Your task to perform on an android device: Look up the best rated coffee maker on Lowe's. Image 0: 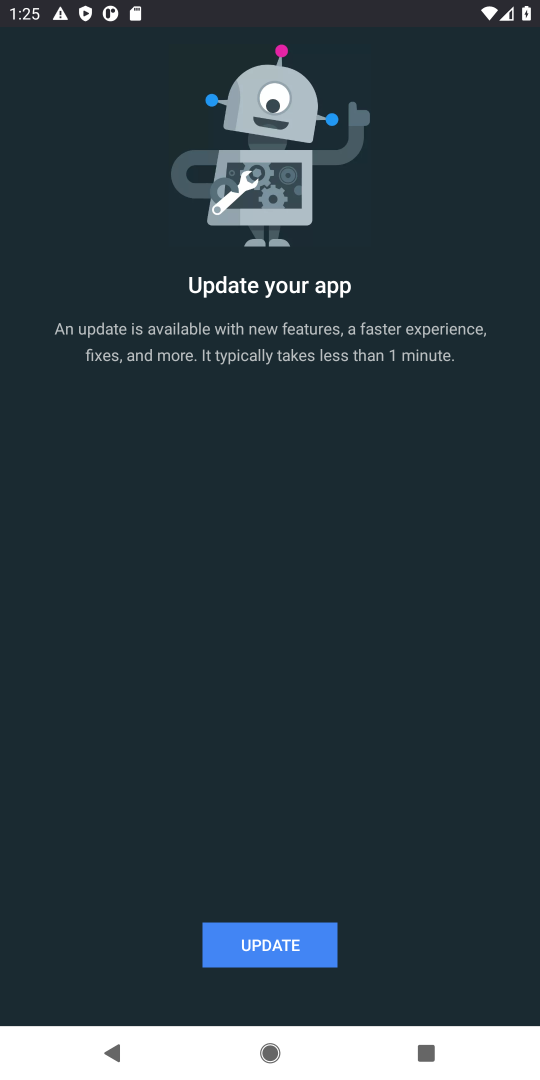
Step 0: press home button
Your task to perform on an android device: Look up the best rated coffee maker on Lowe's. Image 1: 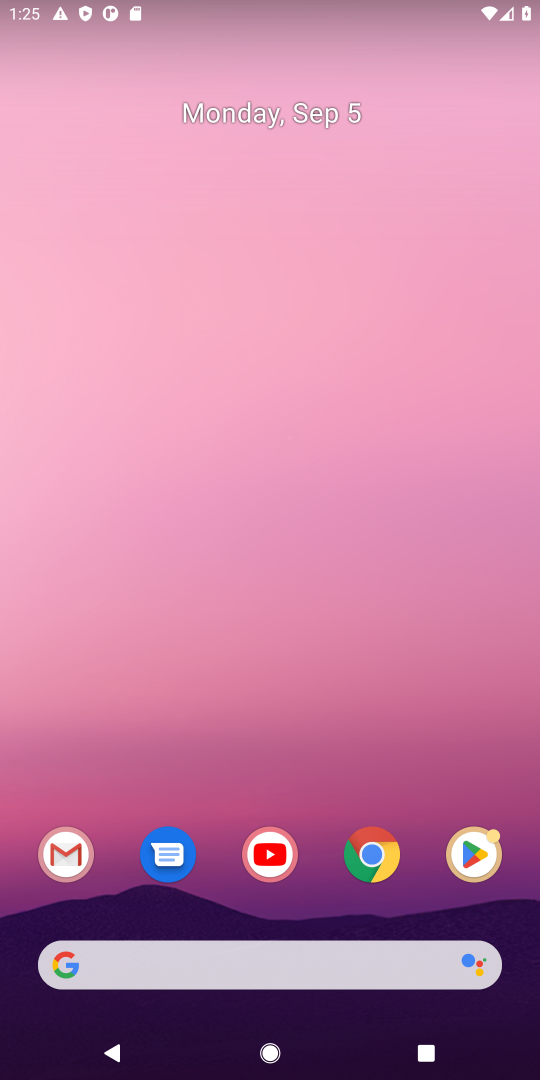
Step 1: click (353, 965)
Your task to perform on an android device: Look up the best rated coffee maker on Lowe's. Image 2: 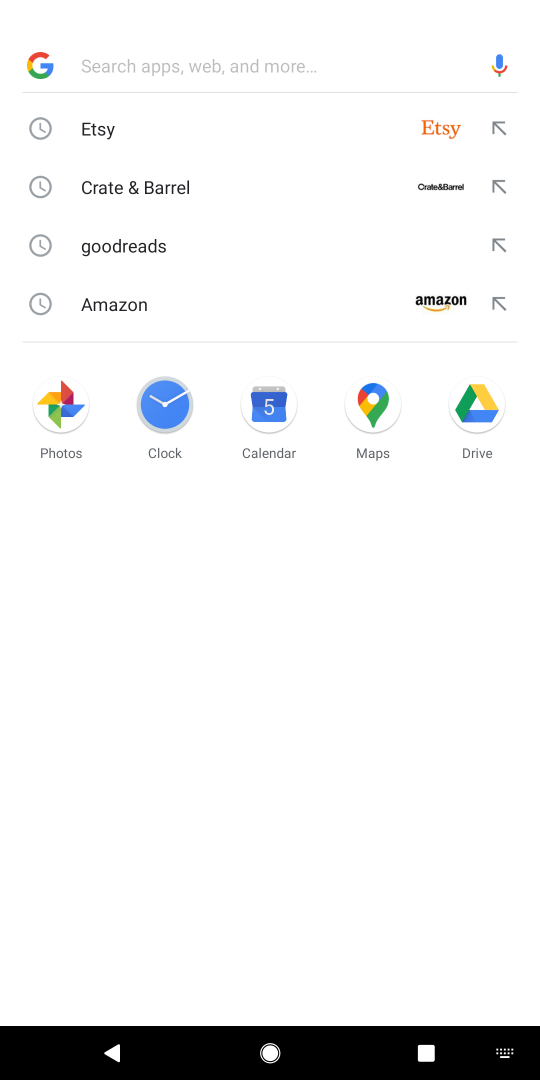
Step 2: click (247, 963)
Your task to perform on an android device: Look up the best rated coffee maker on Lowe's. Image 3: 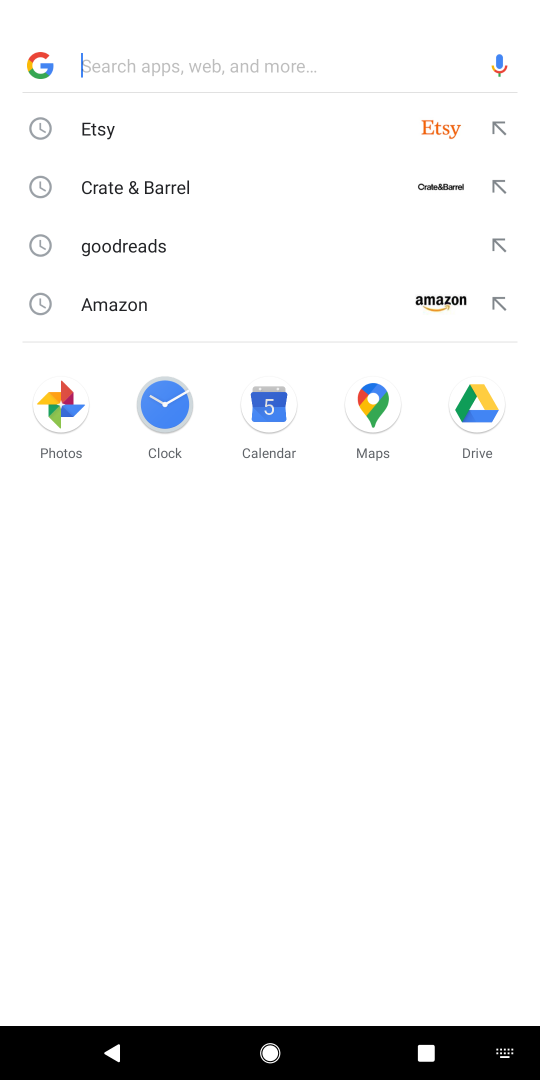
Step 3: press enter
Your task to perform on an android device: Look up the best rated coffee maker on Lowe's. Image 4: 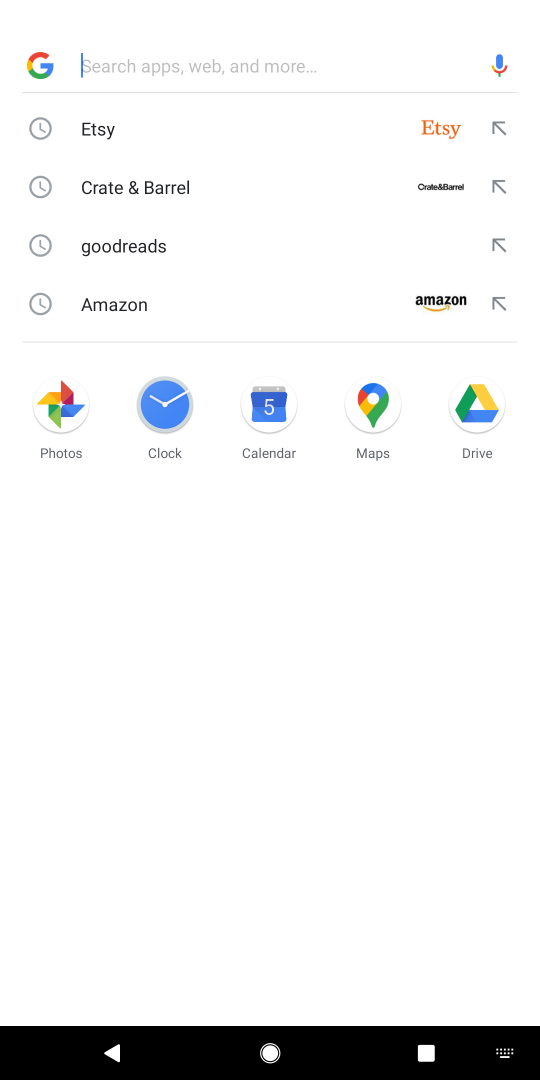
Step 4: type "lowes"
Your task to perform on an android device: Look up the best rated coffee maker on Lowe's. Image 5: 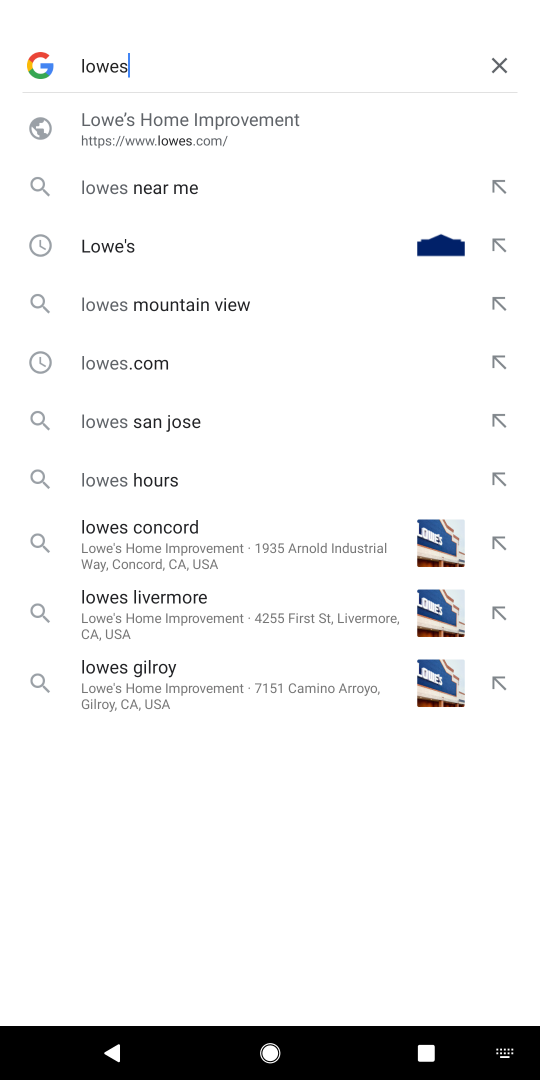
Step 5: click (133, 131)
Your task to perform on an android device: Look up the best rated coffee maker on Lowe's. Image 6: 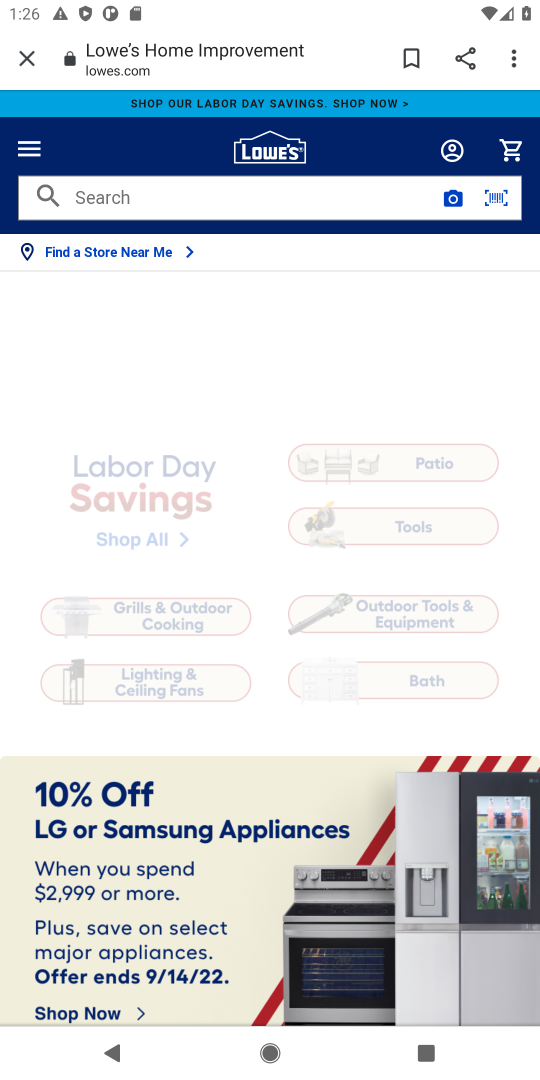
Step 6: click (189, 184)
Your task to perform on an android device: Look up the best rated coffee maker on Lowe's. Image 7: 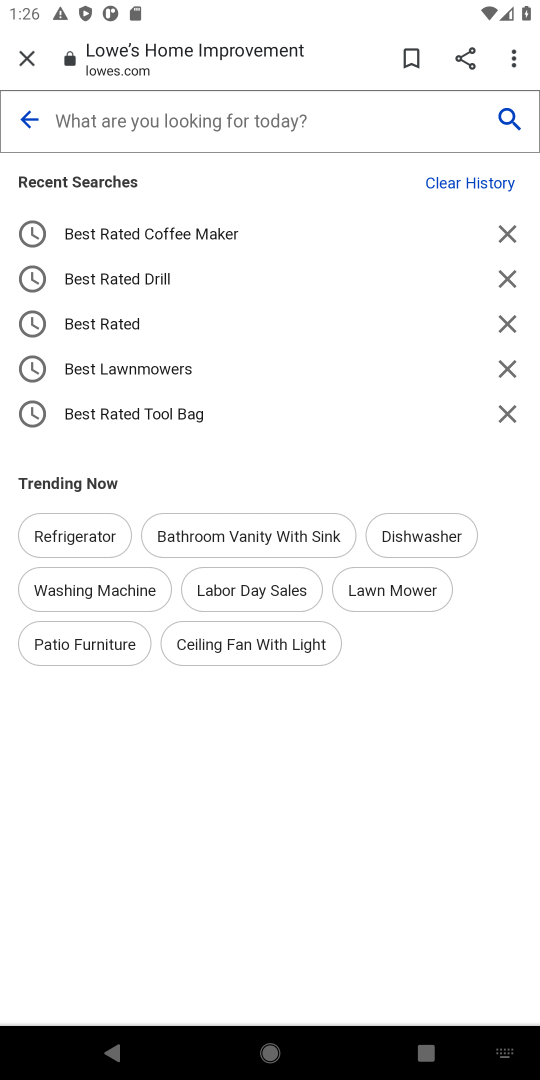
Step 7: click (210, 227)
Your task to perform on an android device: Look up the best rated coffee maker on Lowe's. Image 8: 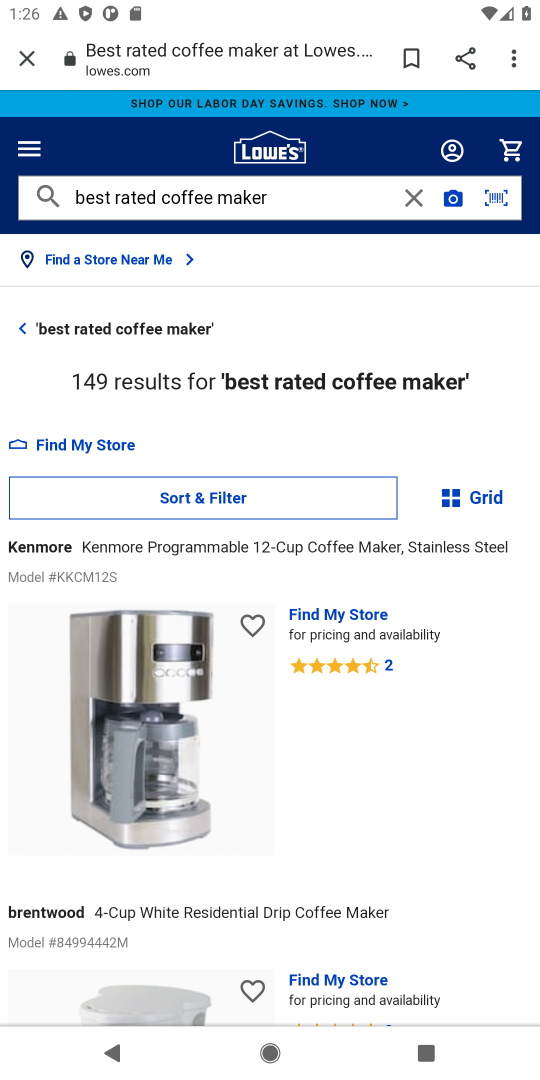
Step 8: task complete